Your task to perform on an android device: remove spam from my inbox in the gmail app Image 0: 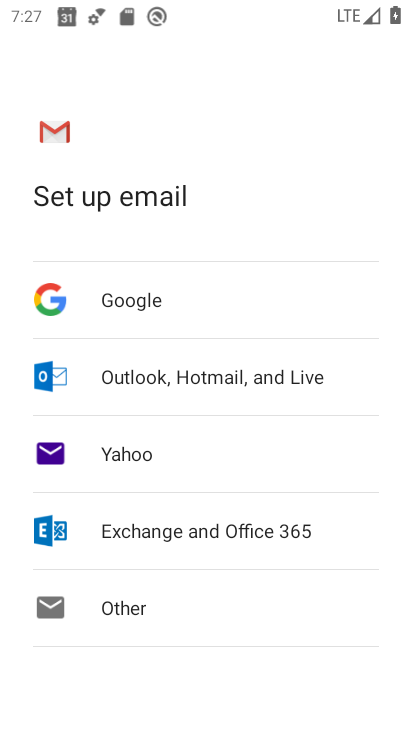
Step 0: press home button
Your task to perform on an android device: remove spam from my inbox in the gmail app Image 1: 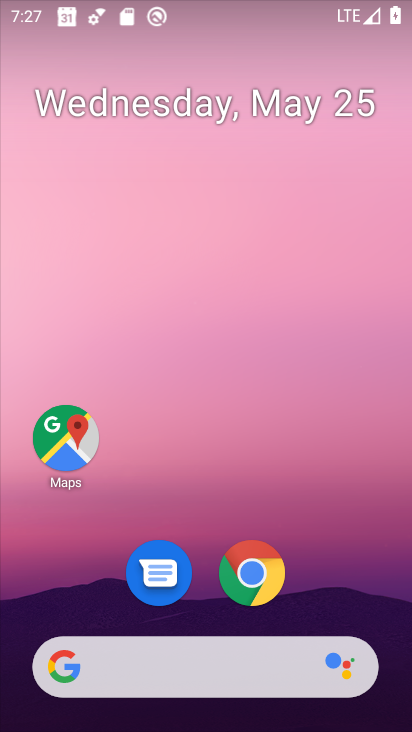
Step 1: drag from (384, 684) to (372, 178)
Your task to perform on an android device: remove spam from my inbox in the gmail app Image 2: 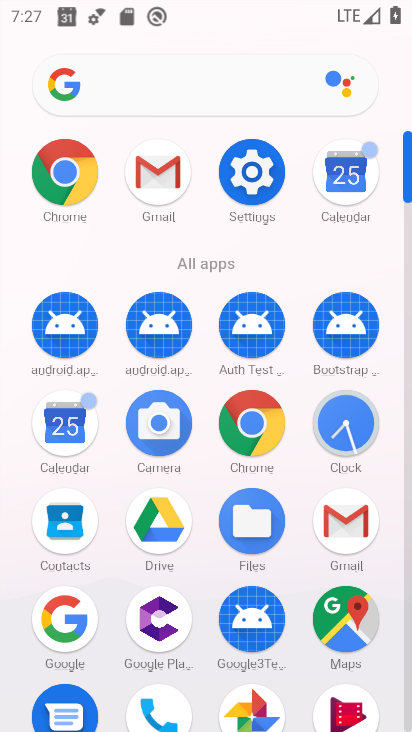
Step 2: click (349, 513)
Your task to perform on an android device: remove spam from my inbox in the gmail app Image 3: 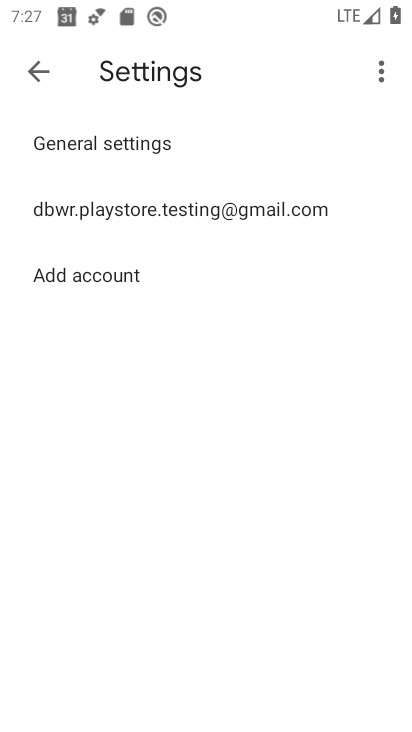
Step 3: click (27, 71)
Your task to perform on an android device: remove spam from my inbox in the gmail app Image 4: 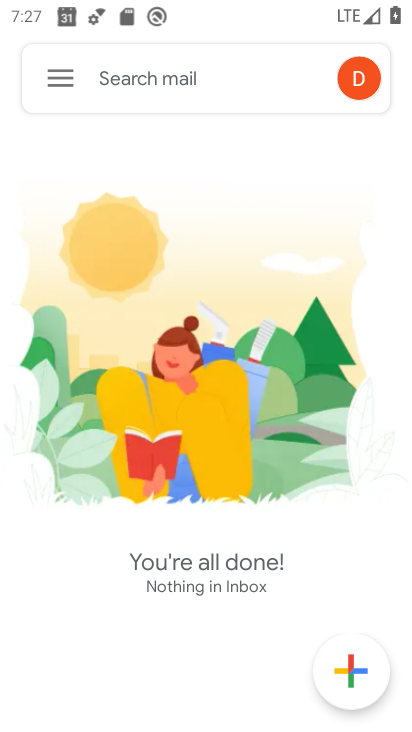
Step 4: click (55, 79)
Your task to perform on an android device: remove spam from my inbox in the gmail app Image 5: 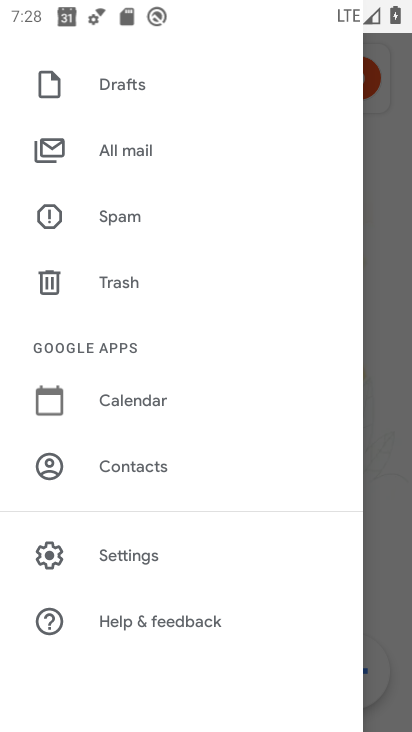
Step 5: click (102, 284)
Your task to perform on an android device: remove spam from my inbox in the gmail app Image 6: 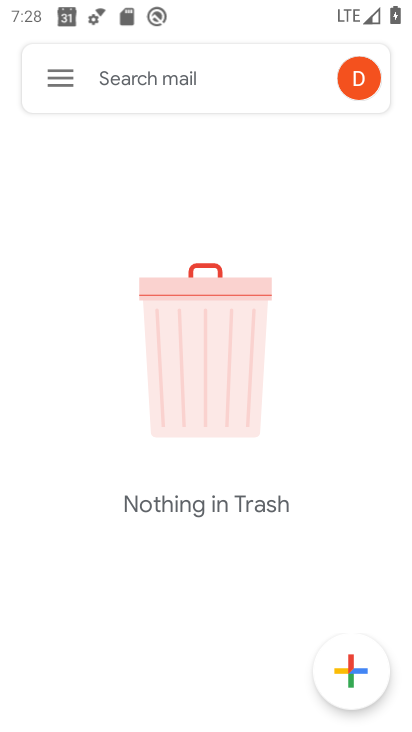
Step 6: task complete